Your task to perform on an android device: Open my contact list Image 0: 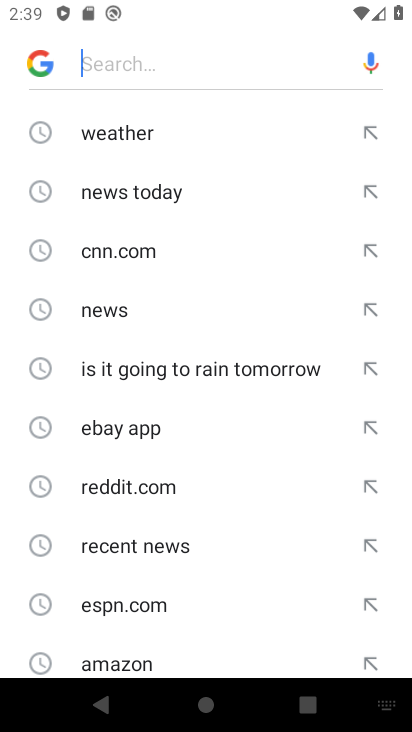
Step 0: press back button
Your task to perform on an android device: Open my contact list Image 1: 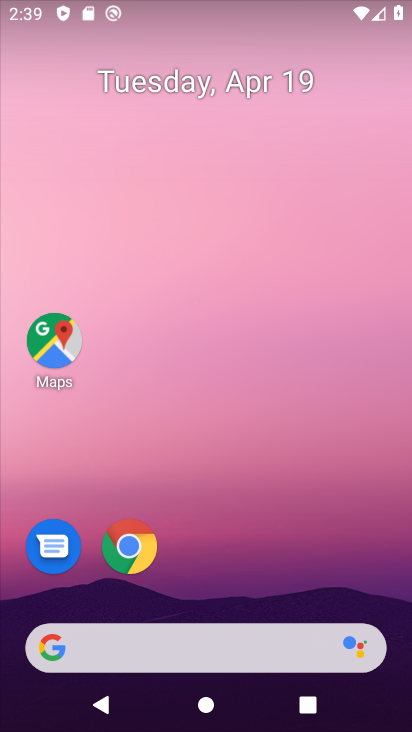
Step 1: drag from (200, 661) to (189, 358)
Your task to perform on an android device: Open my contact list Image 2: 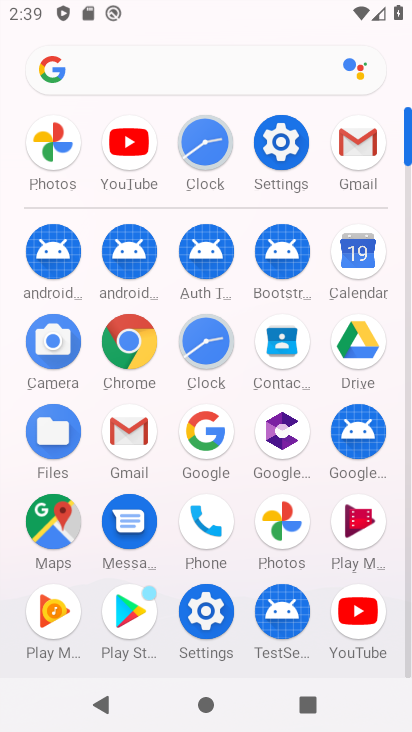
Step 2: click (268, 361)
Your task to perform on an android device: Open my contact list Image 3: 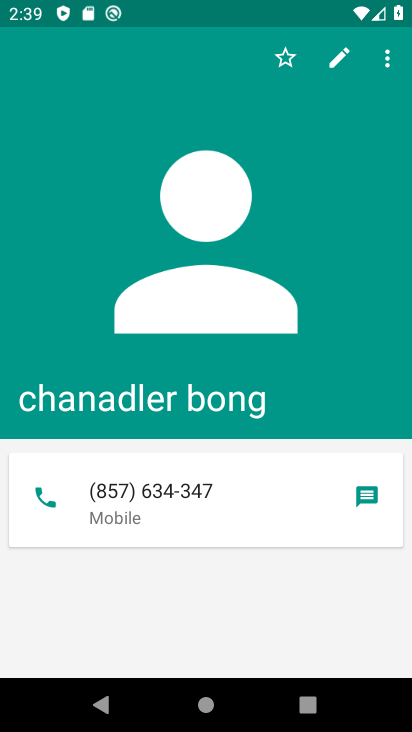
Step 3: task complete